Your task to perform on an android device: Check the news Image 0: 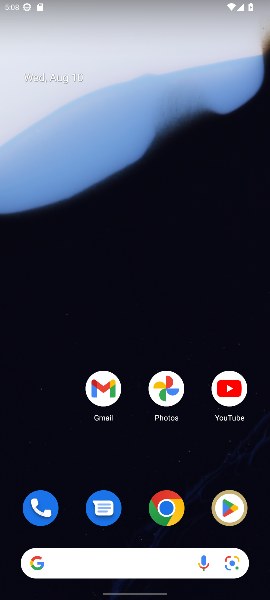
Step 0: press home button
Your task to perform on an android device: Check the news Image 1: 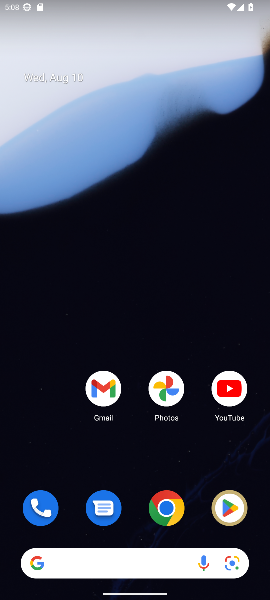
Step 1: drag from (134, 527) to (73, 164)
Your task to perform on an android device: Check the news Image 2: 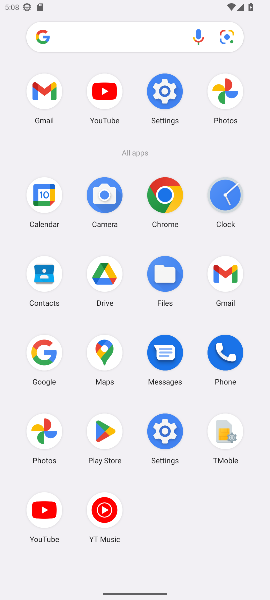
Step 2: click (40, 356)
Your task to perform on an android device: Check the news Image 3: 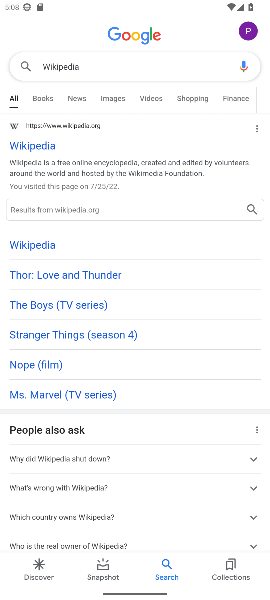
Step 3: click (146, 60)
Your task to perform on an android device: Check the news Image 4: 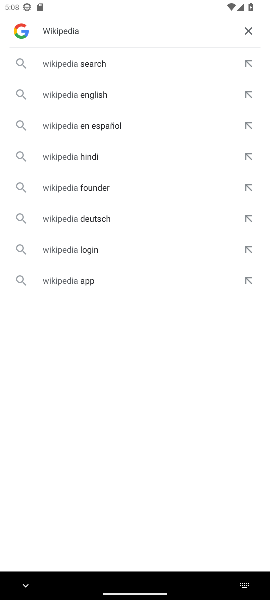
Step 4: click (244, 35)
Your task to perform on an android device: Check the news Image 5: 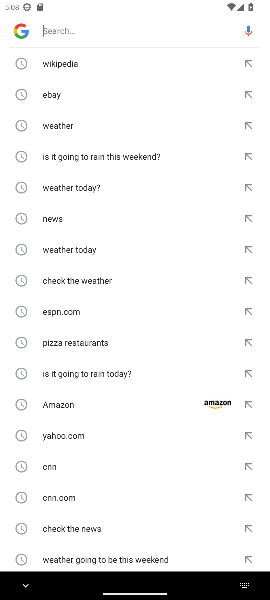
Step 5: type "news"
Your task to perform on an android device: Check the news Image 6: 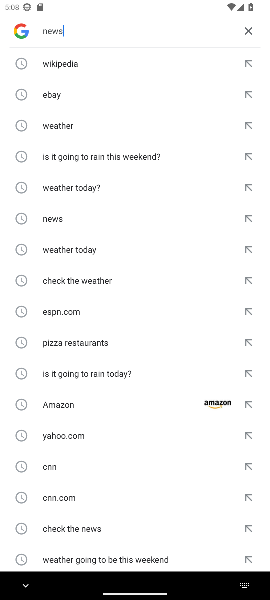
Step 6: press enter
Your task to perform on an android device: Check the news Image 7: 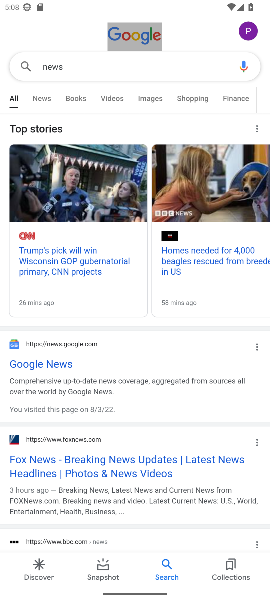
Step 7: task complete